Your task to perform on an android device: set the timer Image 0: 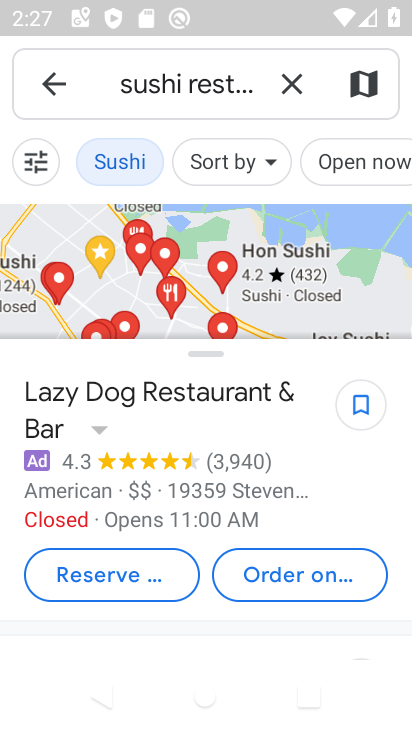
Step 0: press home button
Your task to perform on an android device: set the timer Image 1: 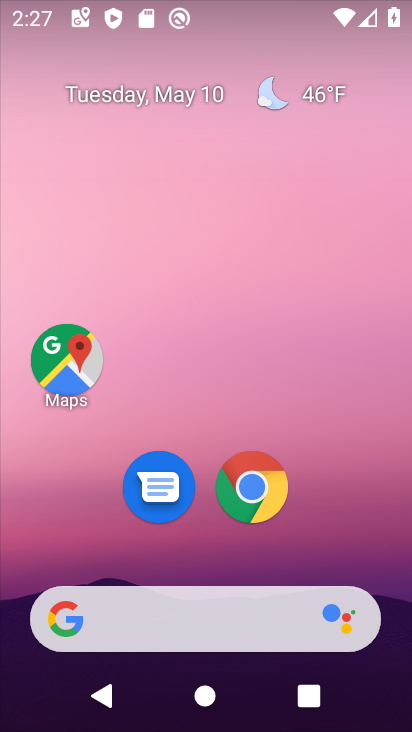
Step 1: drag from (323, 519) to (346, 150)
Your task to perform on an android device: set the timer Image 2: 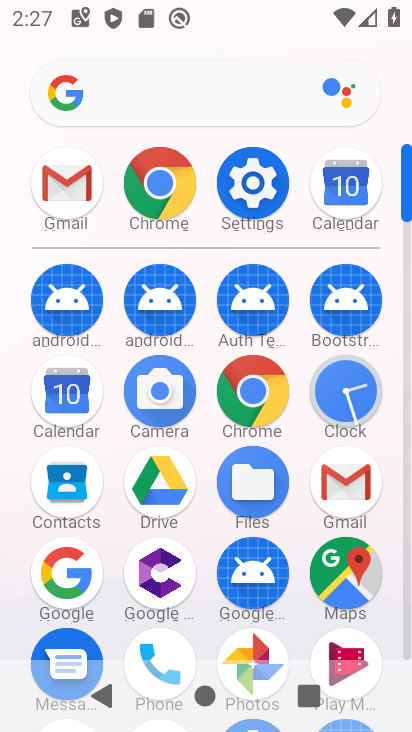
Step 2: click (348, 390)
Your task to perform on an android device: set the timer Image 3: 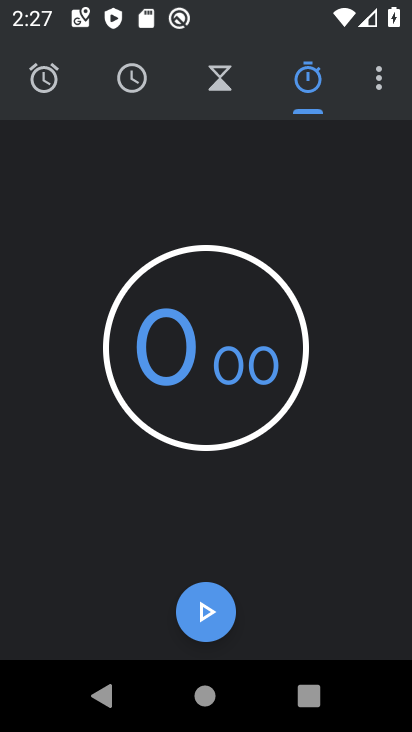
Step 3: click (225, 80)
Your task to perform on an android device: set the timer Image 4: 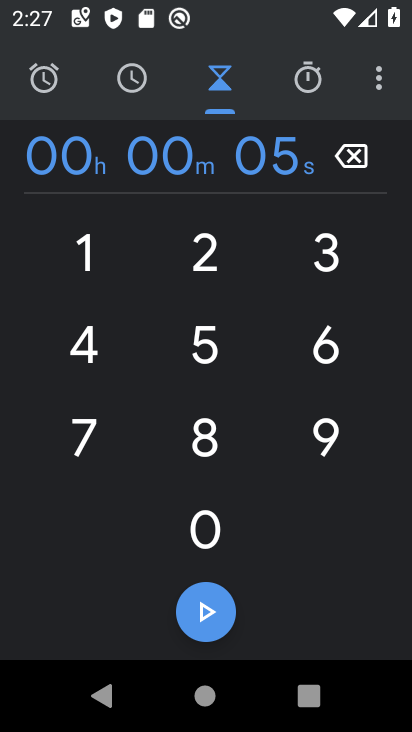
Step 4: click (214, 350)
Your task to perform on an android device: set the timer Image 5: 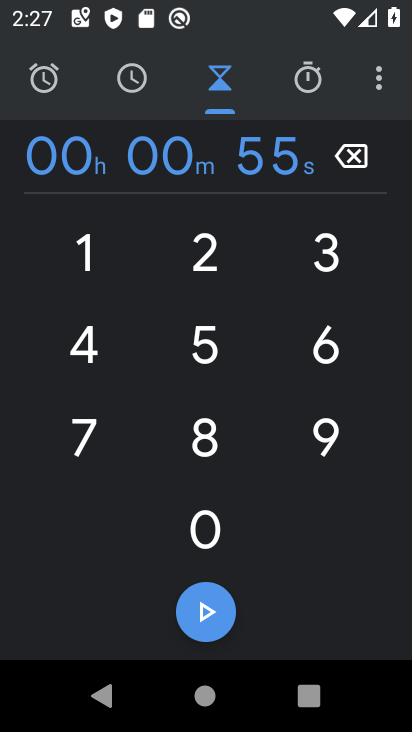
Step 5: task complete